Your task to perform on an android device: toggle location history Image 0: 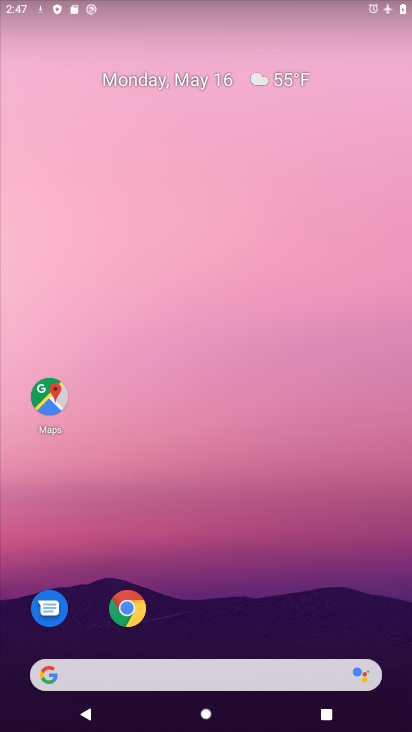
Step 0: drag from (205, 611) to (217, 205)
Your task to perform on an android device: toggle location history Image 1: 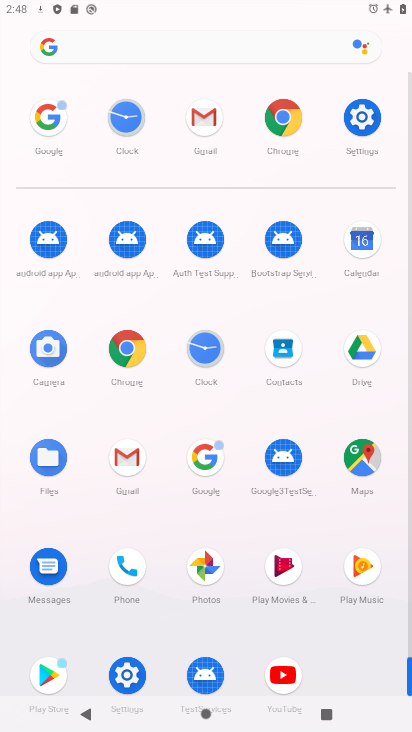
Step 1: click (349, 131)
Your task to perform on an android device: toggle location history Image 2: 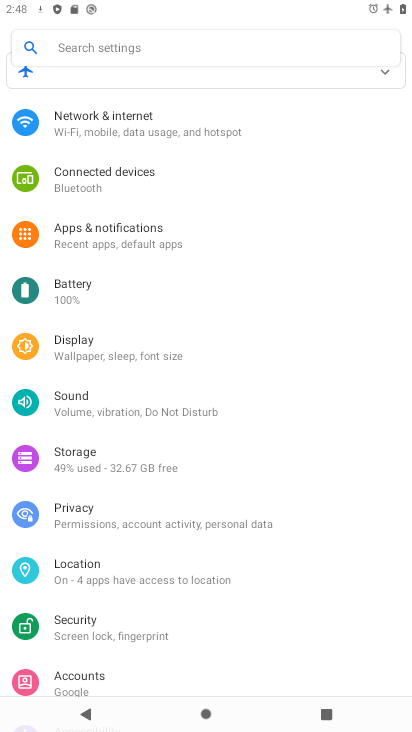
Step 2: click (146, 574)
Your task to perform on an android device: toggle location history Image 3: 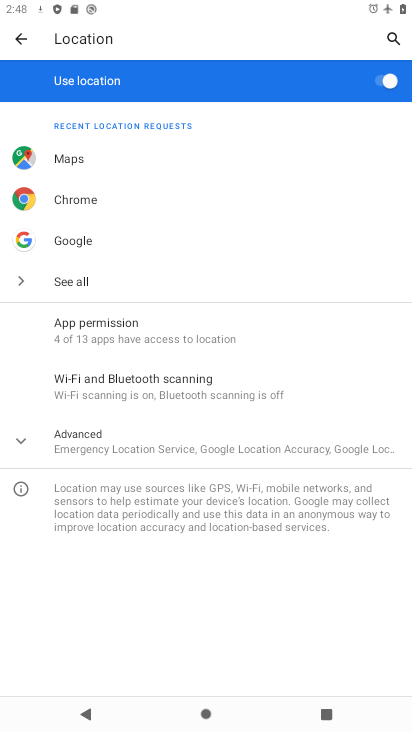
Step 3: click (135, 439)
Your task to perform on an android device: toggle location history Image 4: 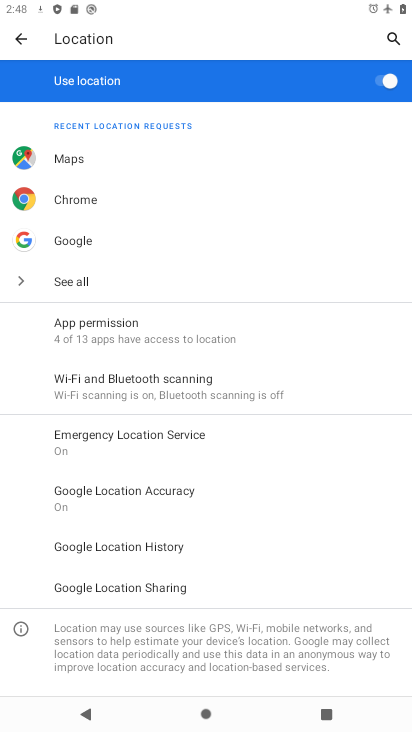
Step 4: drag from (177, 485) to (229, 315)
Your task to perform on an android device: toggle location history Image 5: 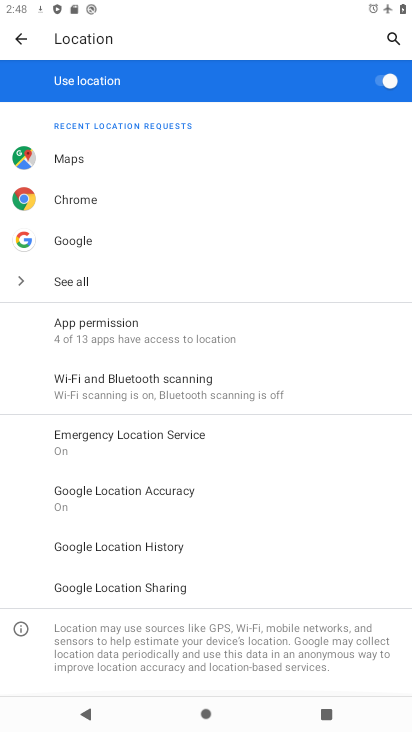
Step 5: click (176, 544)
Your task to perform on an android device: toggle location history Image 6: 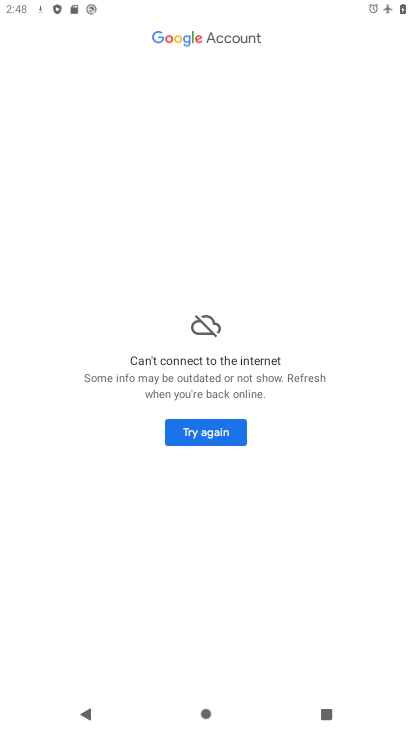
Step 6: click (197, 427)
Your task to perform on an android device: toggle location history Image 7: 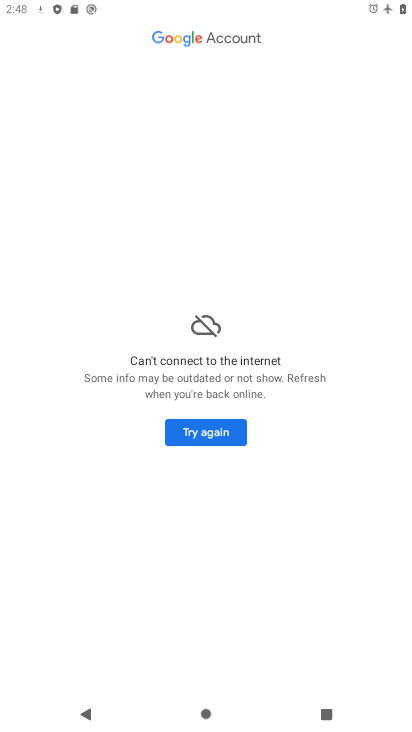
Step 7: task complete